Your task to perform on an android device: turn pop-ups on in chrome Image 0: 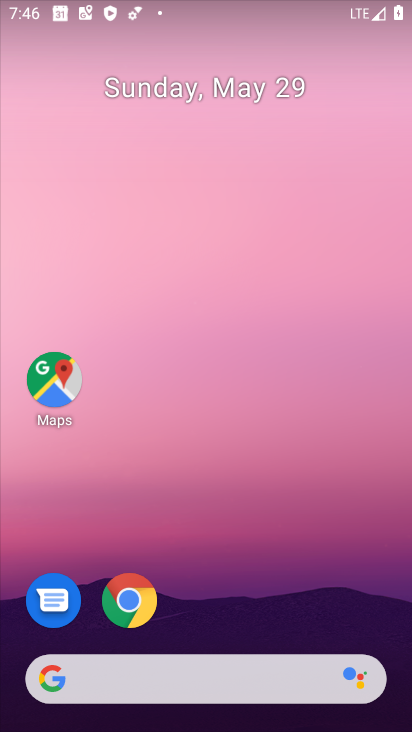
Step 0: click (148, 606)
Your task to perform on an android device: turn pop-ups on in chrome Image 1: 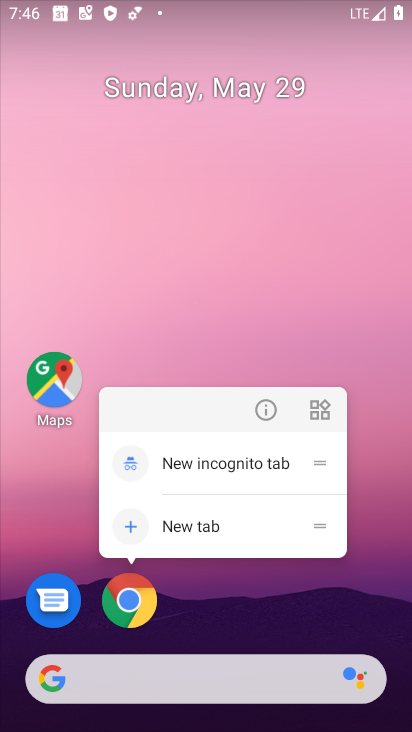
Step 1: click (128, 583)
Your task to perform on an android device: turn pop-ups on in chrome Image 2: 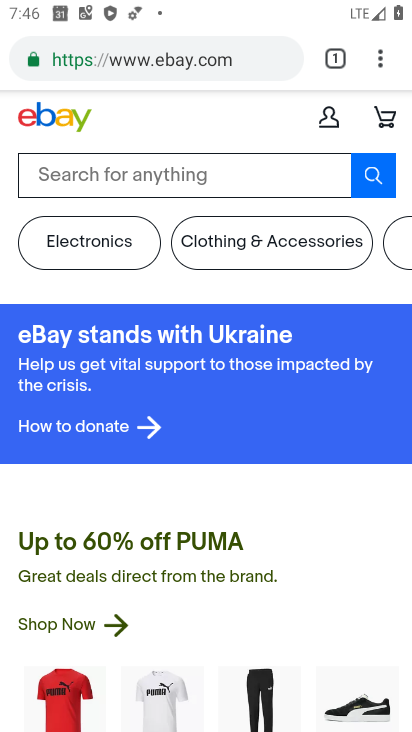
Step 2: click (384, 58)
Your task to perform on an android device: turn pop-ups on in chrome Image 3: 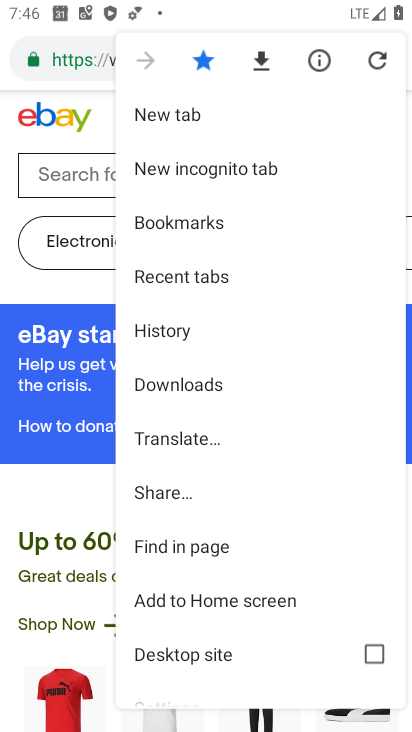
Step 3: drag from (175, 639) to (252, 241)
Your task to perform on an android device: turn pop-ups on in chrome Image 4: 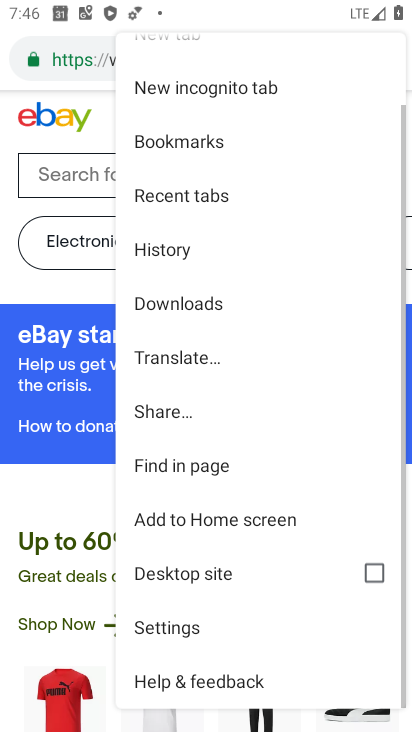
Step 4: click (173, 634)
Your task to perform on an android device: turn pop-ups on in chrome Image 5: 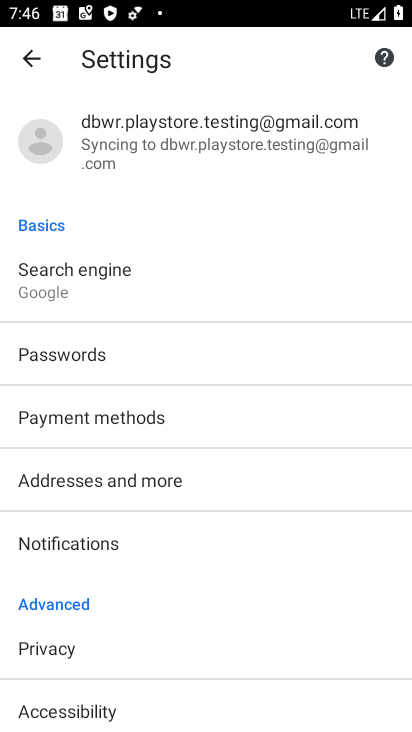
Step 5: drag from (152, 623) to (167, 337)
Your task to perform on an android device: turn pop-ups on in chrome Image 6: 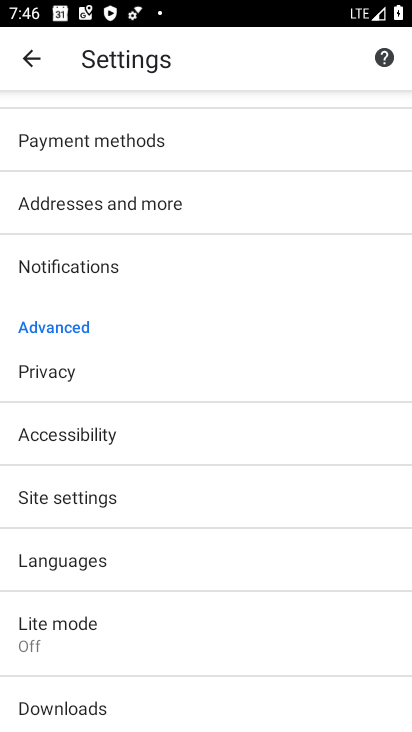
Step 6: click (96, 502)
Your task to perform on an android device: turn pop-ups on in chrome Image 7: 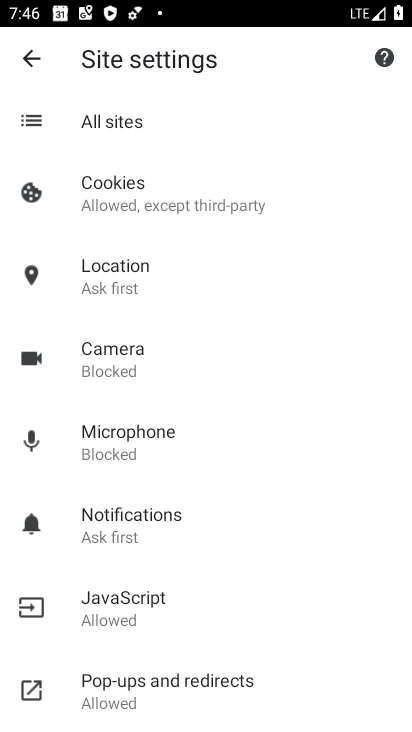
Step 7: click (136, 681)
Your task to perform on an android device: turn pop-ups on in chrome Image 8: 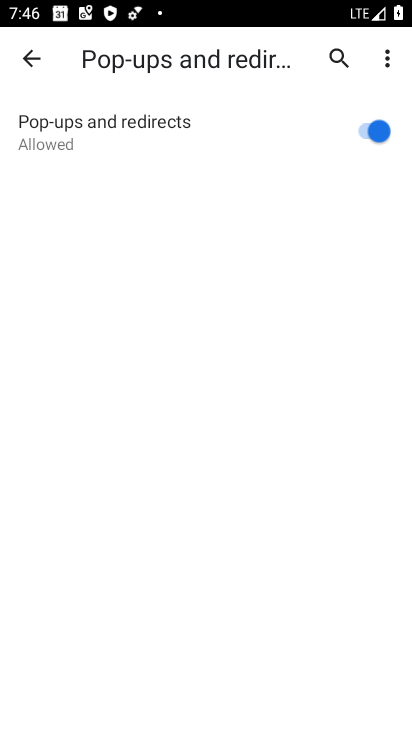
Step 8: task complete